Your task to perform on an android device: Go to network settings Image 0: 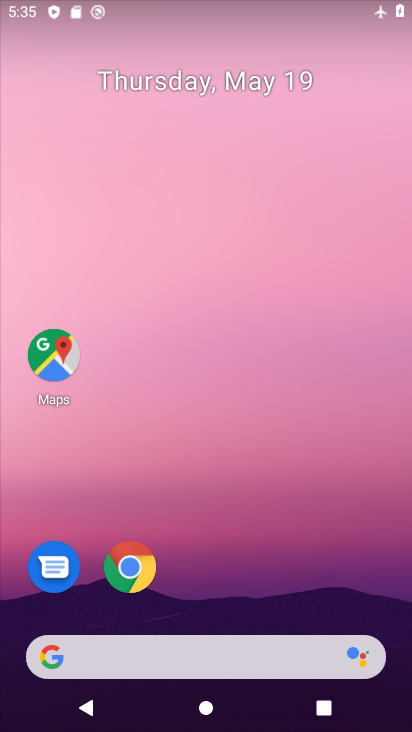
Step 0: click (189, 94)
Your task to perform on an android device: Go to network settings Image 1: 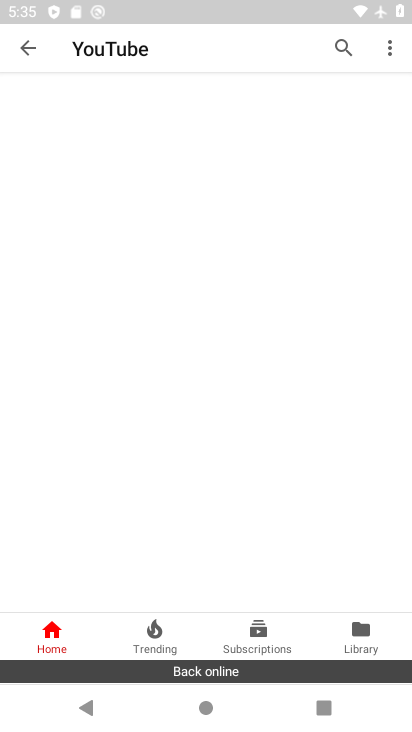
Step 1: drag from (270, 580) to (270, 102)
Your task to perform on an android device: Go to network settings Image 2: 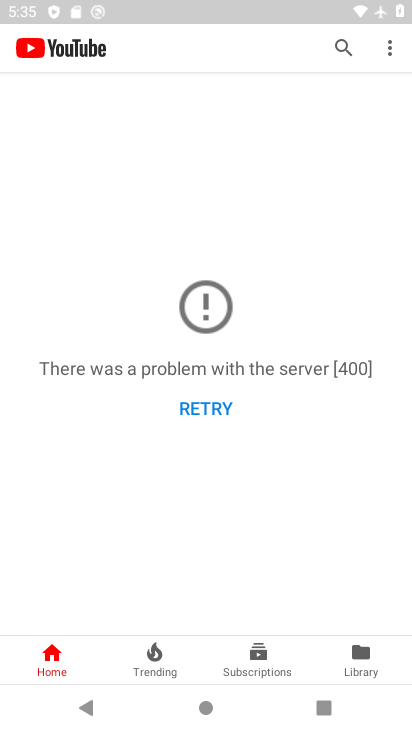
Step 2: press back button
Your task to perform on an android device: Go to network settings Image 3: 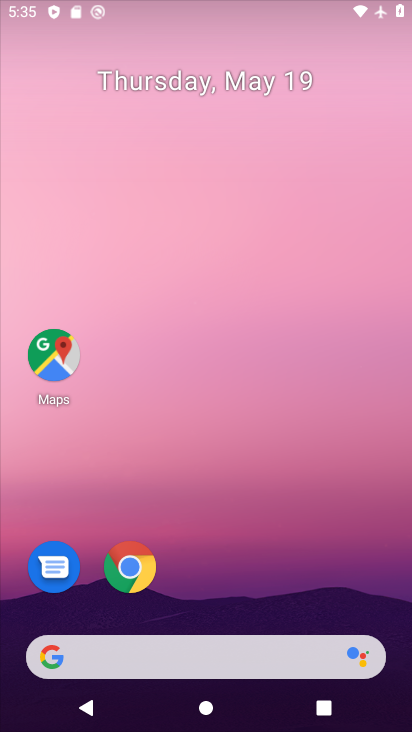
Step 3: drag from (191, 613) to (50, 10)
Your task to perform on an android device: Go to network settings Image 4: 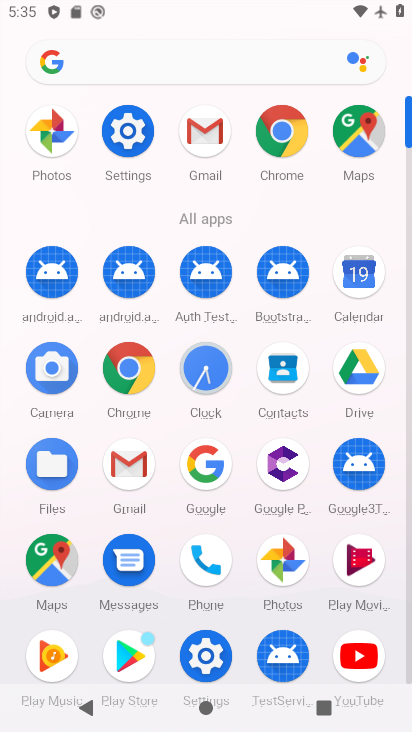
Step 4: click (135, 125)
Your task to perform on an android device: Go to network settings Image 5: 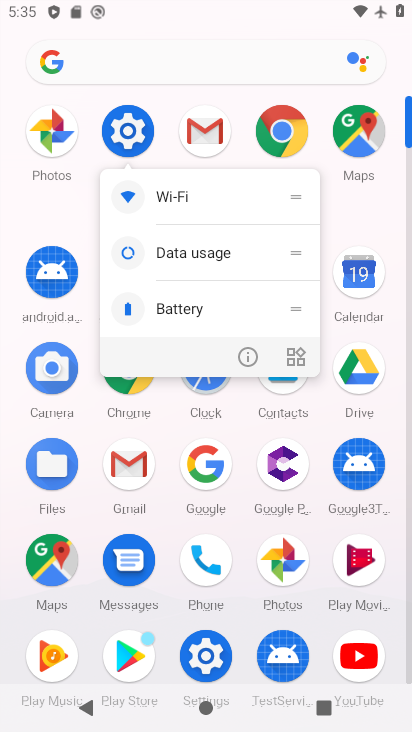
Step 5: click (135, 125)
Your task to perform on an android device: Go to network settings Image 6: 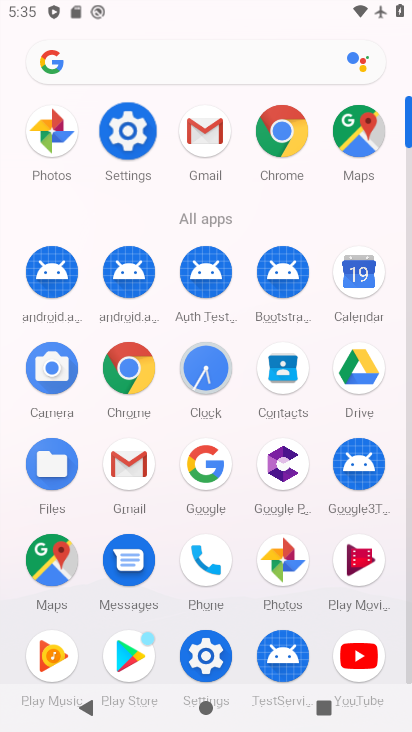
Step 6: click (135, 125)
Your task to perform on an android device: Go to network settings Image 7: 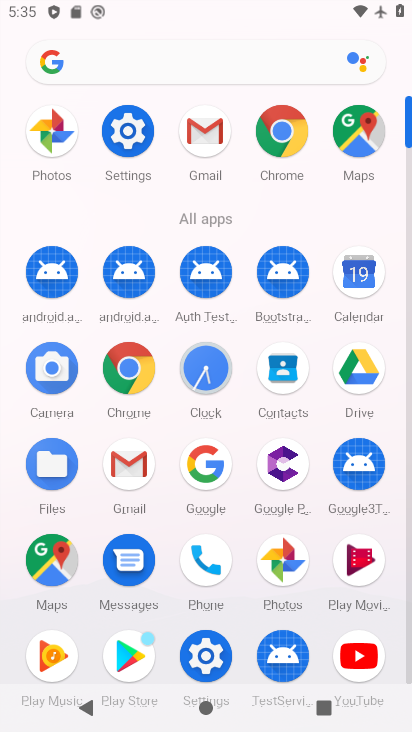
Step 7: click (135, 125)
Your task to perform on an android device: Go to network settings Image 8: 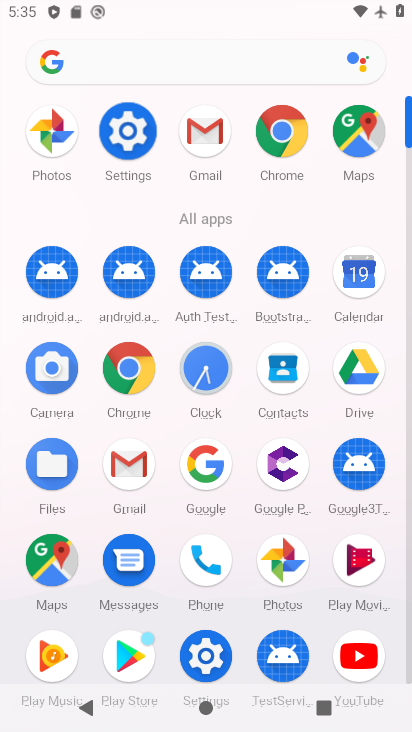
Step 8: click (135, 125)
Your task to perform on an android device: Go to network settings Image 9: 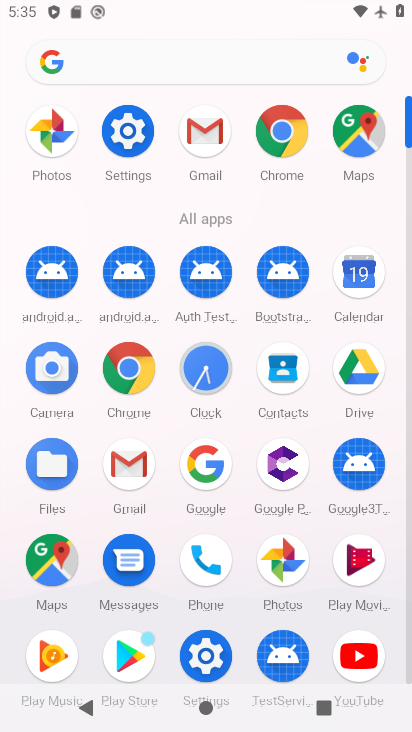
Step 9: click (134, 139)
Your task to perform on an android device: Go to network settings Image 10: 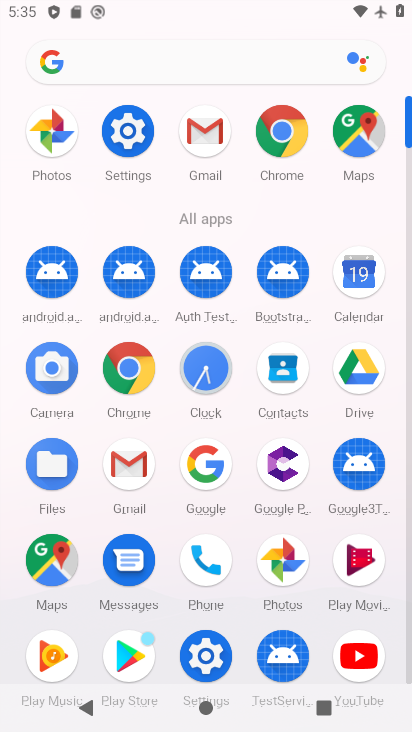
Step 10: click (134, 139)
Your task to perform on an android device: Go to network settings Image 11: 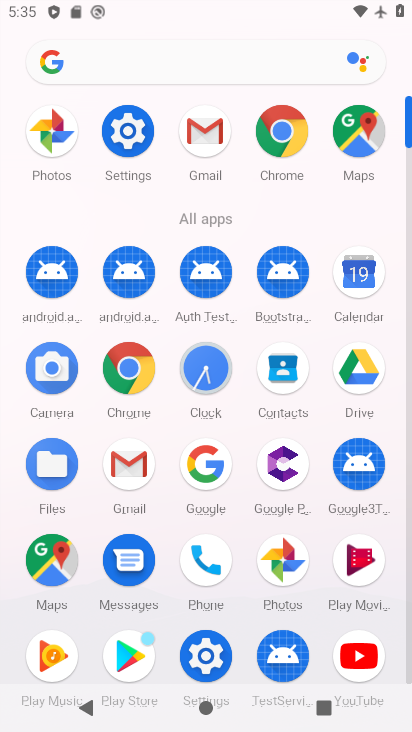
Step 11: click (134, 139)
Your task to perform on an android device: Go to network settings Image 12: 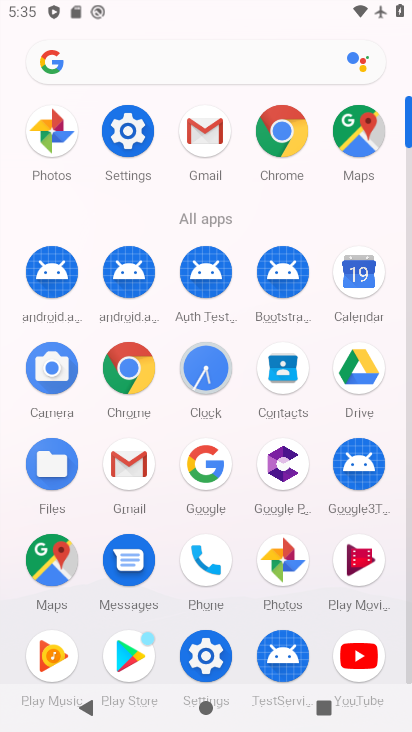
Step 12: click (129, 128)
Your task to perform on an android device: Go to network settings Image 13: 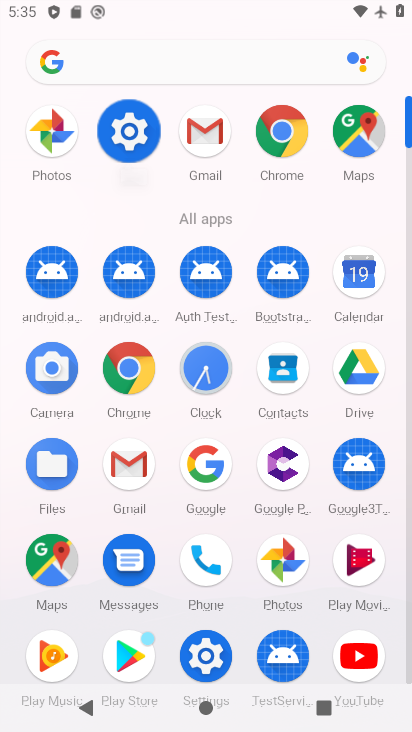
Step 13: click (129, 128)
Your task to perform on an android device: Go to network settings Image 14: 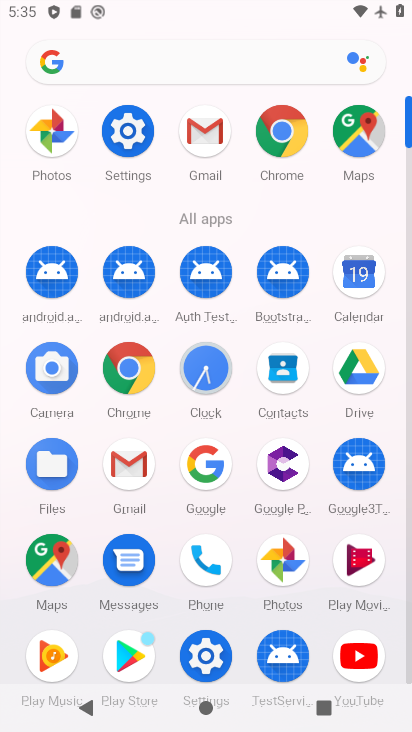
Step 14: click (130, 128)
Your task to perform on an android device: Go to network settings Image 15: 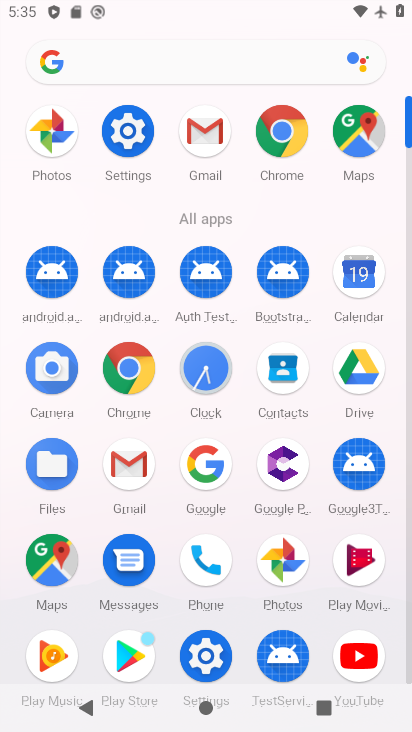
Step 15: click (130, 128)
Your task to perform on an android device: Go to network settings Image 16: 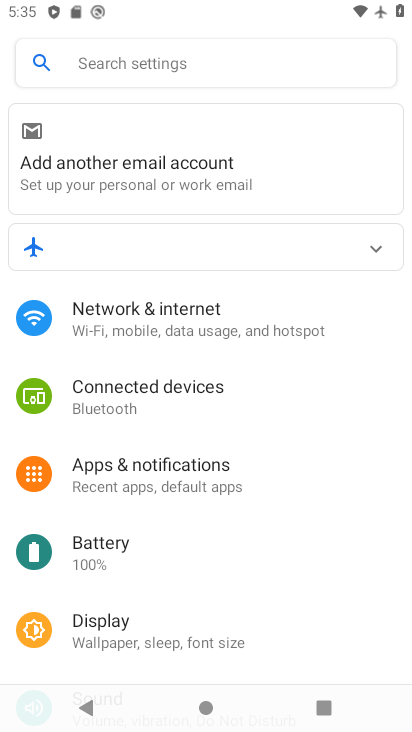
Step 16: click (160, 324)
Your task to perform on an android device: Go to network settings Image 17: 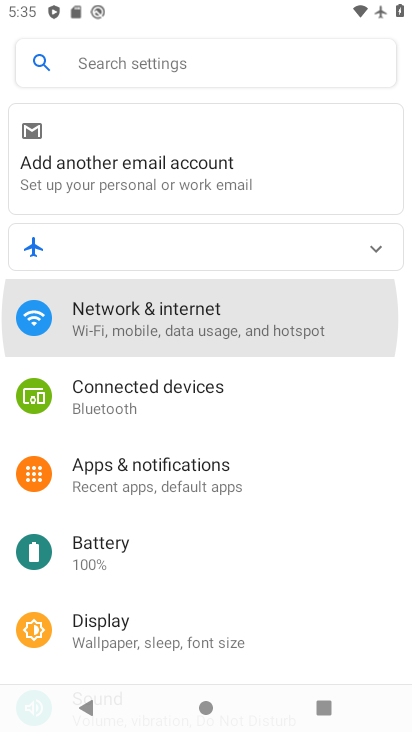
Step 17: click (160, 324)
Your task to perform on an android device: Go to network settings Image 18: 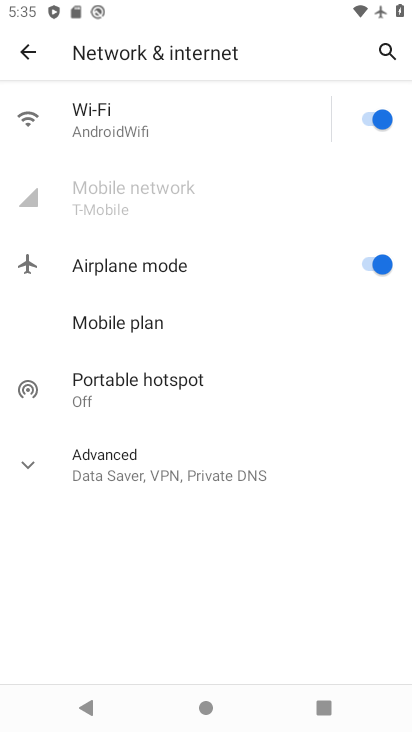
Step 18: task complete